Your task to perform on an android device: open chrome privacy settings Image 0: 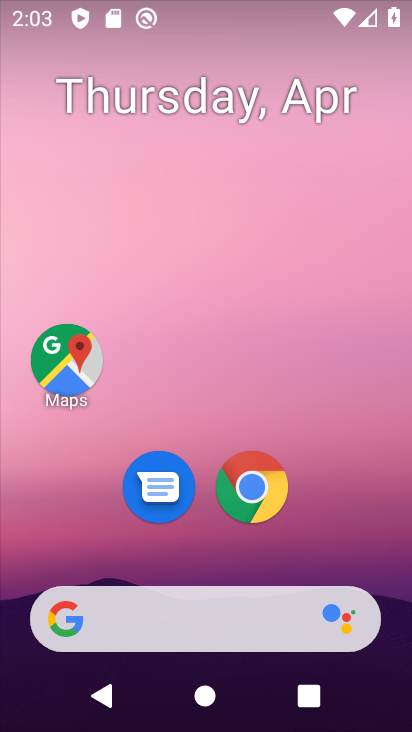
Step 0: drag from (191, 395) to (279, 10)
Your task to perform on an android device: open chrome privacy settings Image 1: 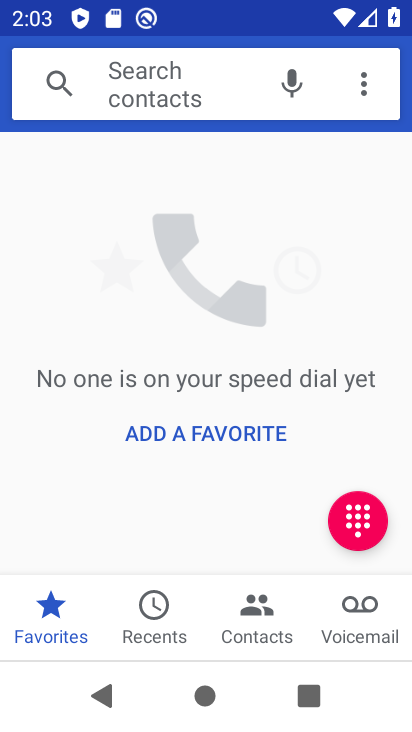
Step 1: press back button
Your task to perform on an android device: open chrome privacy settings Image 2: 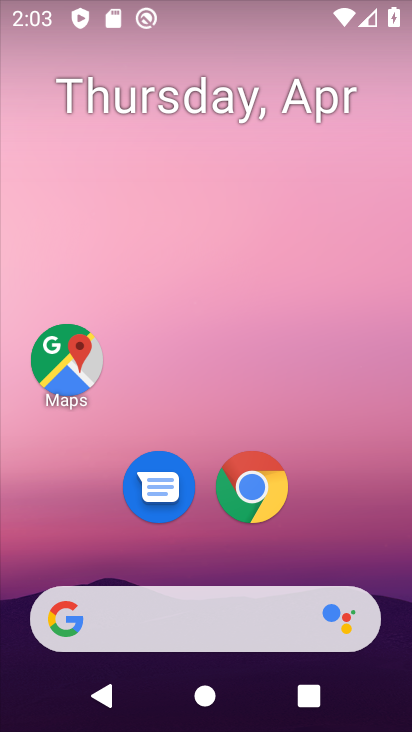
Step 2: click (256, 512)
Your task to perform on an android device: open chrome privacy settings Image 3: 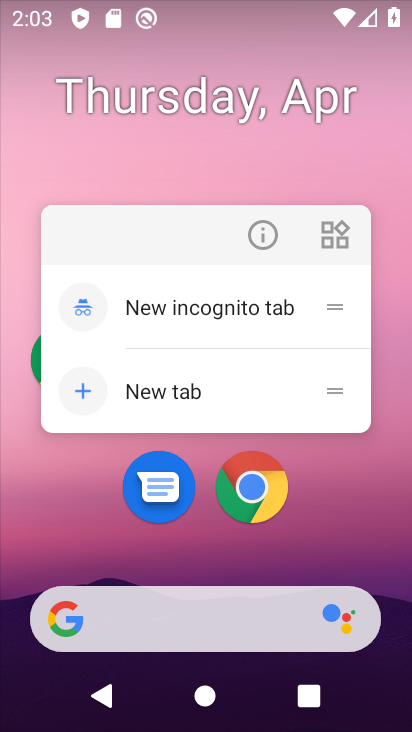
Step 3: click (258, 501)
Your task to perform on an android device: open chrome privacy settings Image 4: 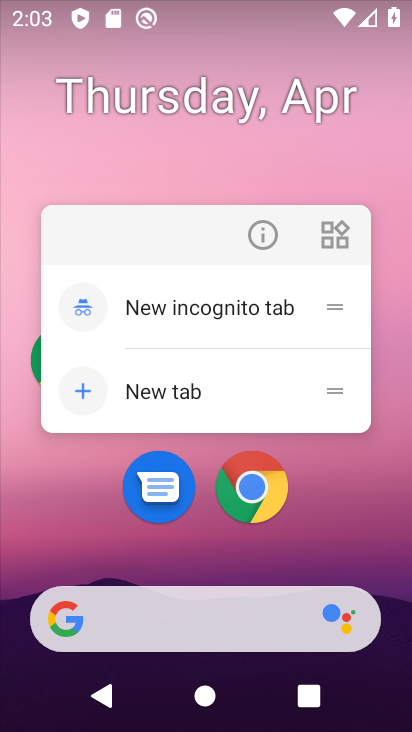
Step 4: click (260, 494)
Your task to perform on an android device: open chrome privacy settings Image 5: 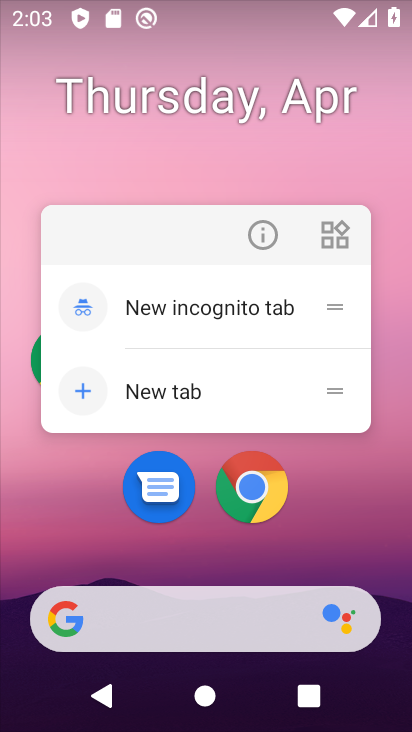
Step 5: click (254, 483)
Your task to perform on an android device: open chrome privacy settings Image 6: 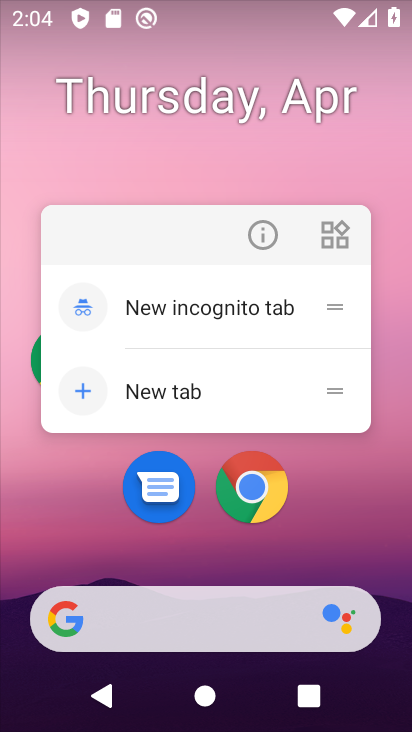
Step 6: click (254, 487)
Your task to perform on an android device: open chrome privacy settings Image 7: 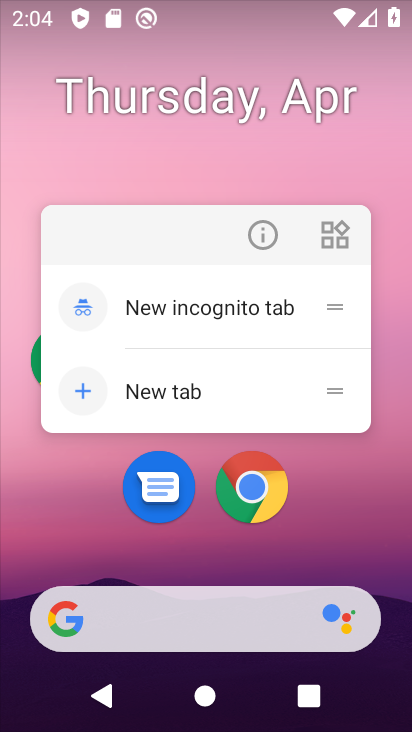
Step 7: click (261, 487)
Your task to perform on an android device: open chrome privacy settings Image 8: 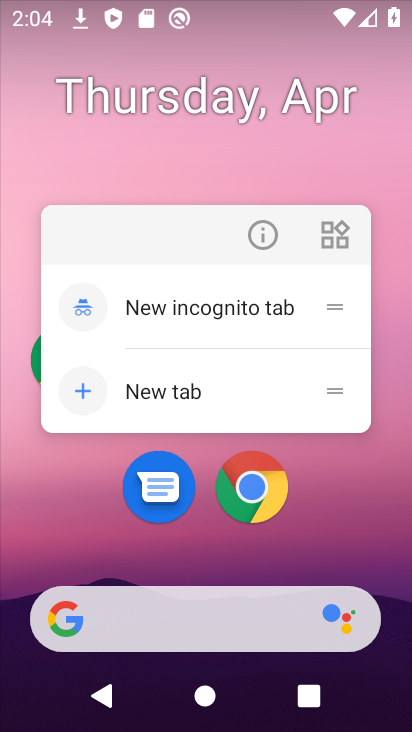
Step 8: click (263, 490)
Your task to perform on an android device: open chrome privacy settings Image 9: 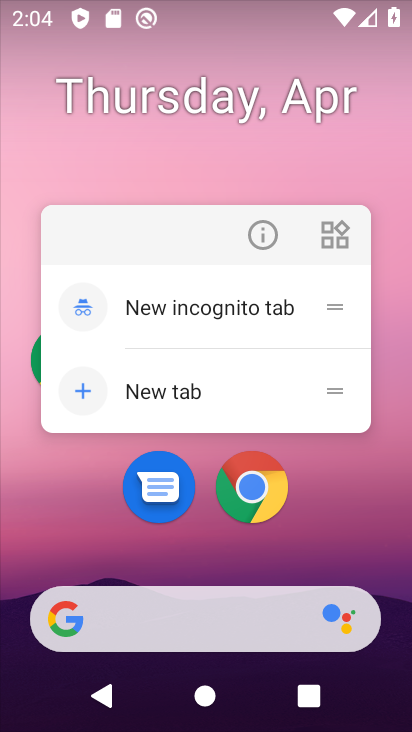
Step 9: click (274, 489)
Your task to perform on an android device: open chrome privacy settings Image 10: 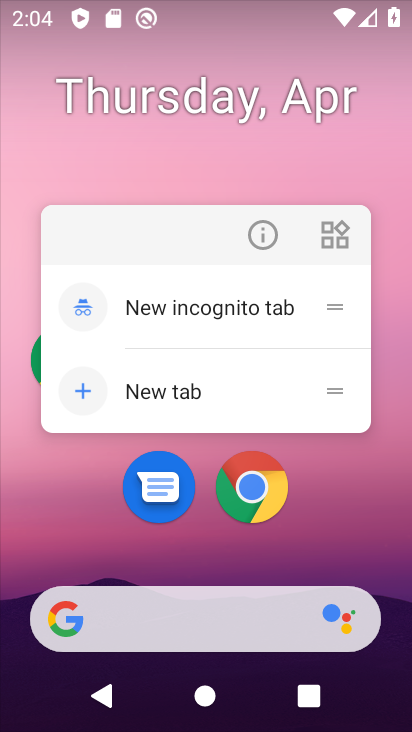
Step 10: click (251, 497)
Your task to perform on an android device: open chrome privacy settings Image 11: 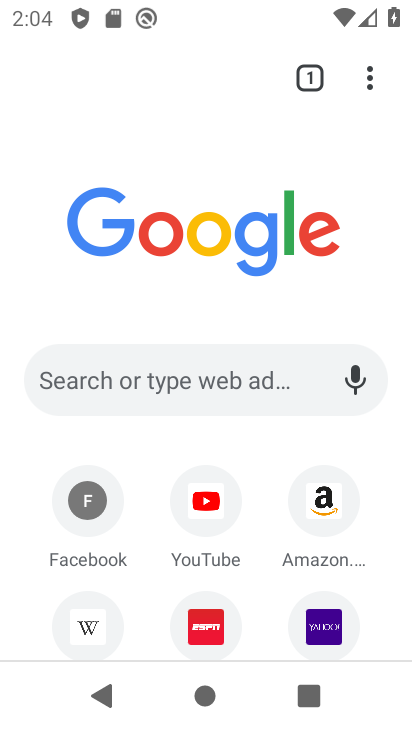
Step 11: drag from (371, 86) to (222, 562)
Your task to perform on an android device: open chrome privacy settings Image 12: 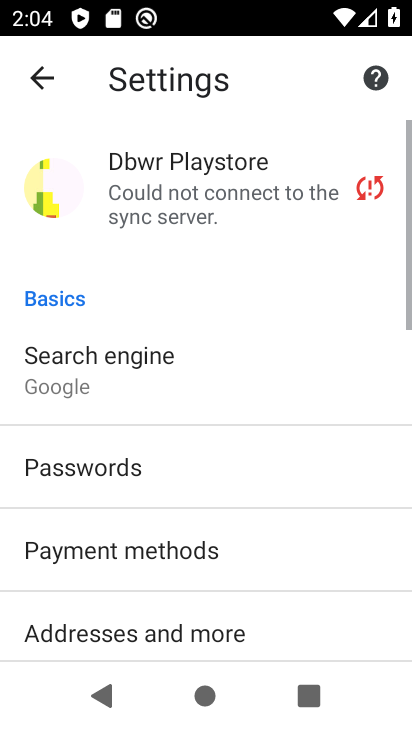
Step 12: drag from (117, 603) to (236, 175)
Your task to perform on an android device: open chrome privacy settings Image 13: 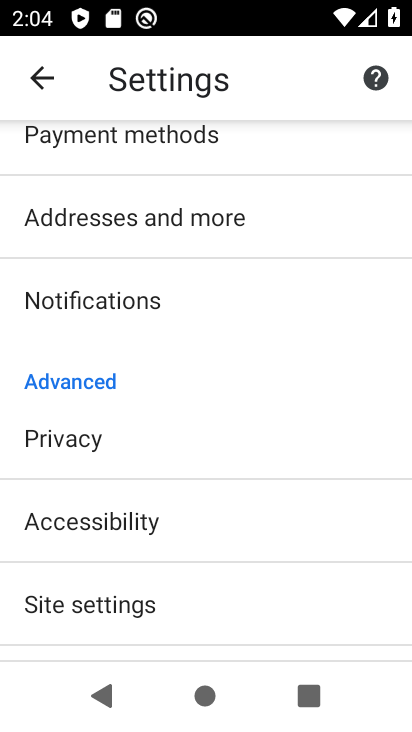
Step 13: click (128, 440)
Your task to perform on an android device: open chrome privacy settings Image 14: 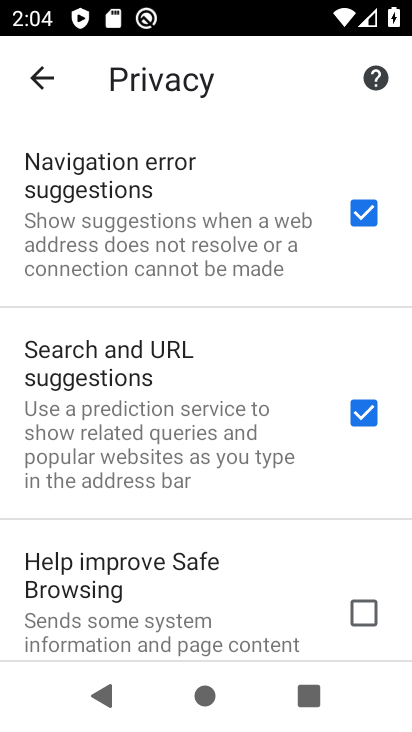
Step 14: task complete